Your task to perform on an android device: Open privacy settings Image 0: 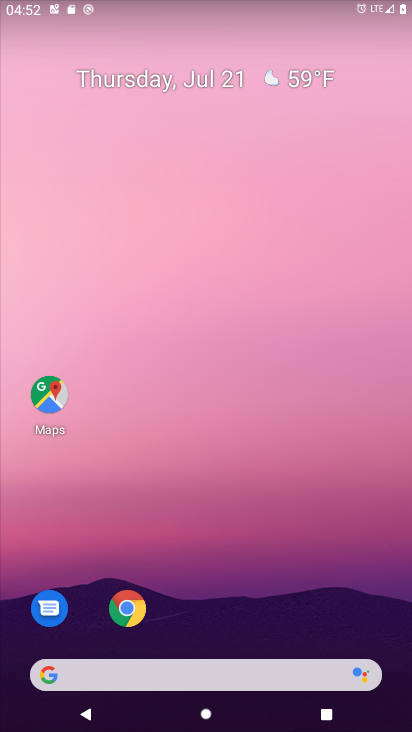
Step 0: drag from (285, 681) to (240, 217)
Your task to perform on an android device: Open privacy settings Image 1: 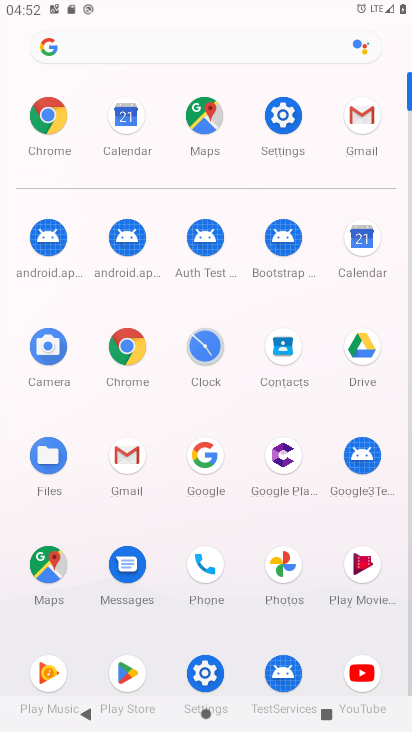
Step 1: click (268, 129)
Your task to perform on an android device: Open privacy settings Image 2: 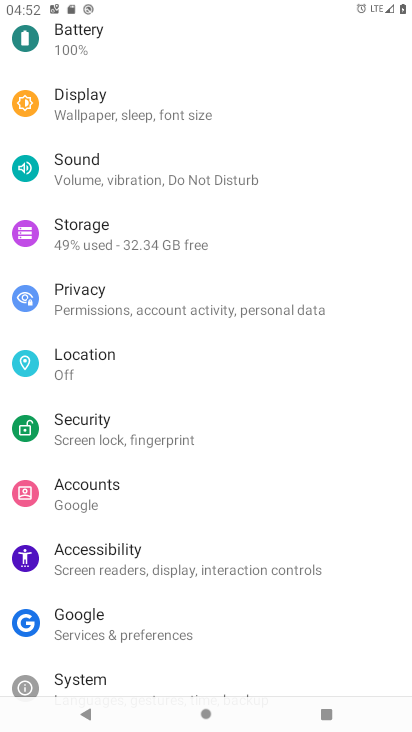
Step 2: click (110, 301)
Your task to perform on an android device: Open privacy settings Image 3: 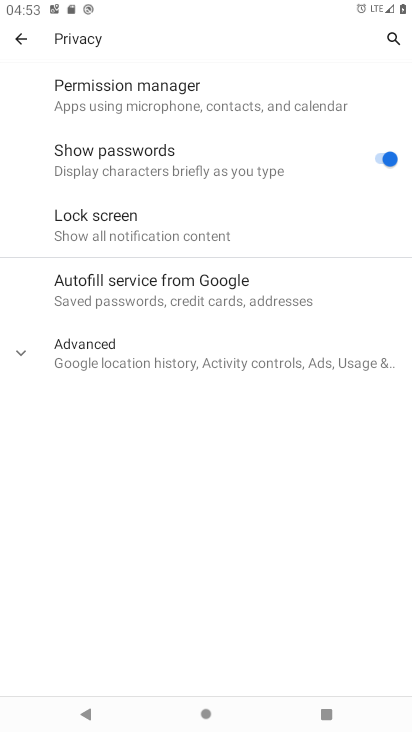
Step 3: task complete